Your task to perform on an android device: Open display settings Image 0: 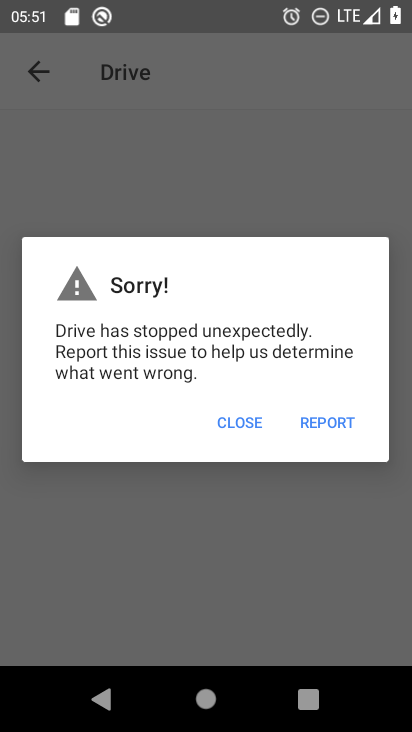
Step 0: press home button
Your task to perform on an android device: Open display settings Image 1: 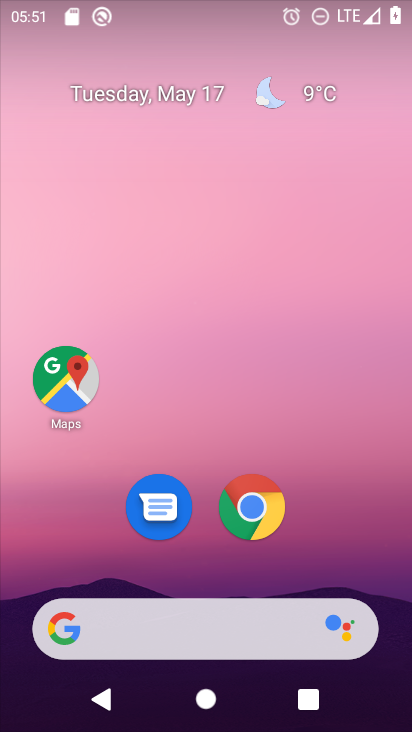
Step 1: drag from (334, 555) to (214, 76)
Your task to perform on an android device: Open display settings Image 2: 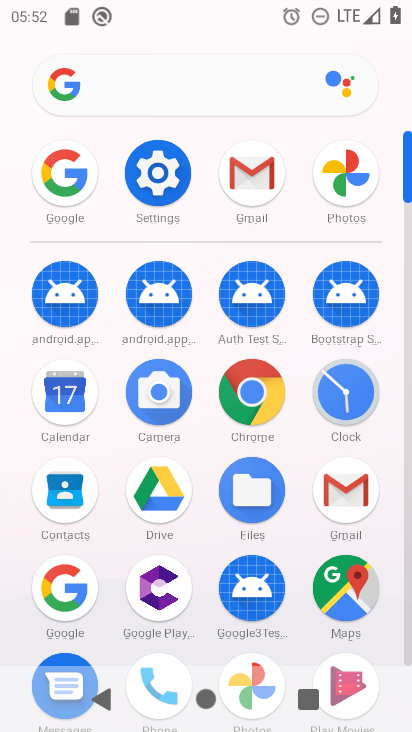
Step 2: click (144, 178)
Your task to perform on an android device: Open display settings Image 3: 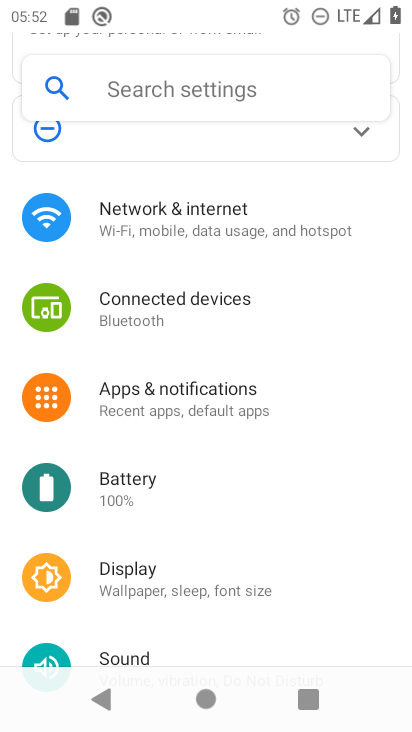
Step 3: click (218, 576)
Your task to perform on an android device: Open display settings Image 4: 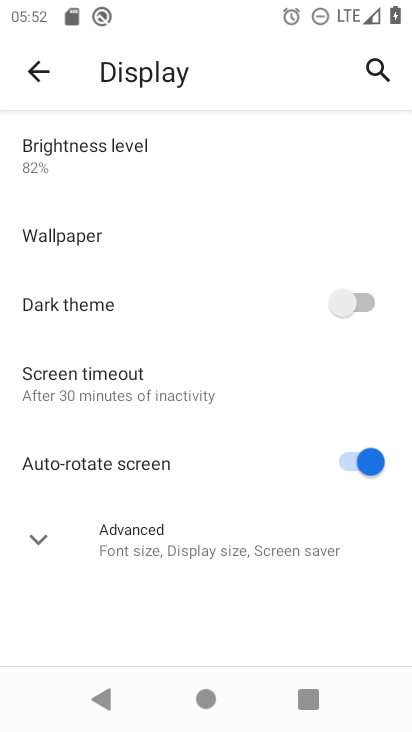
Step 4: task complete